Your task to perform on an android device: Open internet settings Image 0: 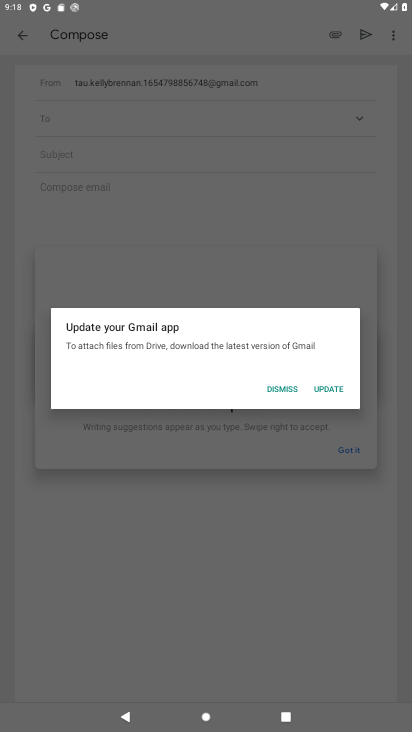
Step 0: press home button
Your task to perform on an android device: Open internet settings Image 1: 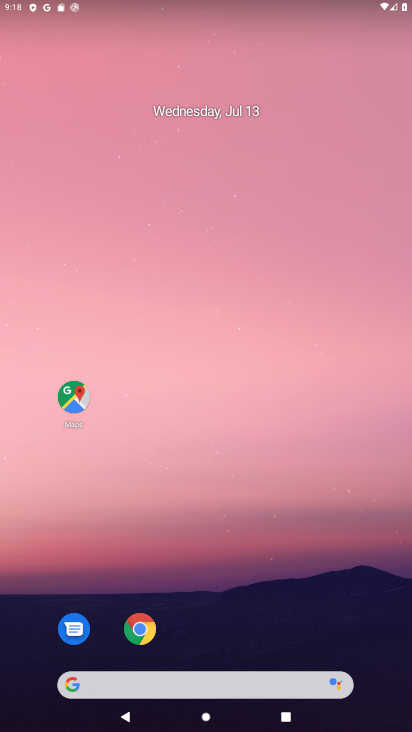
Step 1: drag from (284, 582) to (126, 14)
Your task to perform on an android device: Open internet settings Image 2: 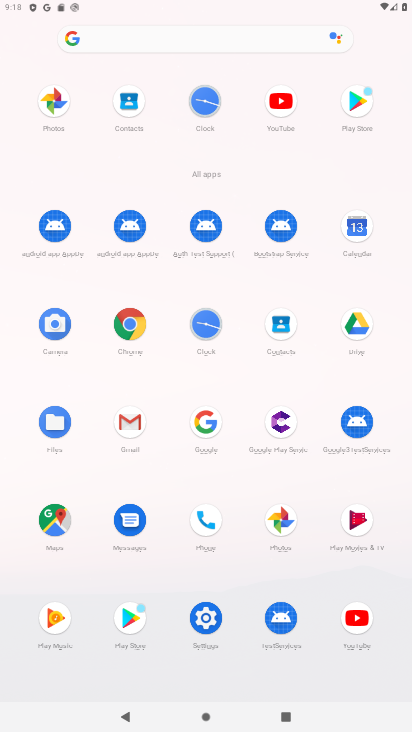
Step 2: click (219, 619)
Your task to perform on an android device: Open internet settings Image 3: 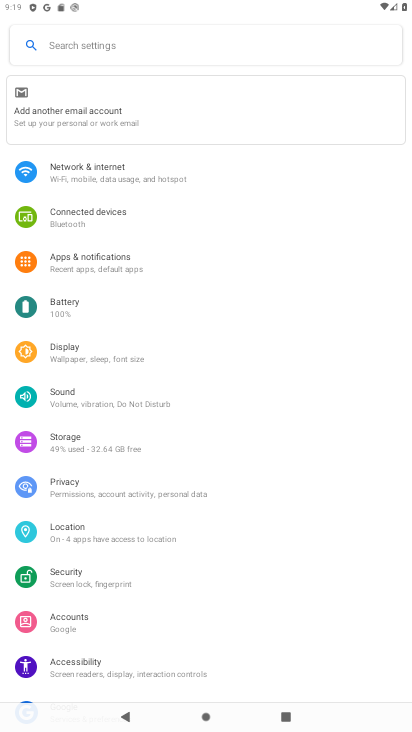
Step 3: click (147, 177)
Your task to perform on an android device: Open internet settings Image 4: 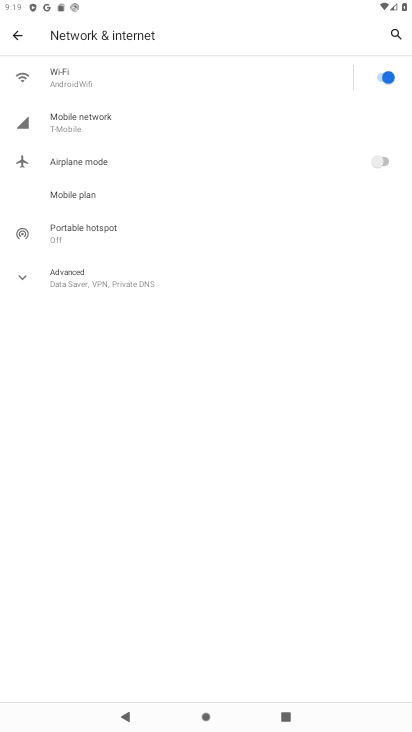
Step 4: task complete